Your task to perform on an android device: clear all cookies in the chrome app Image 0: 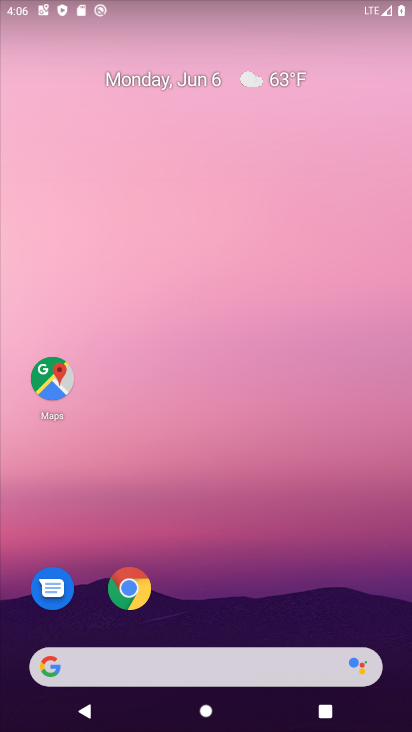
Step 0: drag from (285, 690) to (237, 179)
Your task to perform on an android device: clear all cookies in the chrome app Image 1: 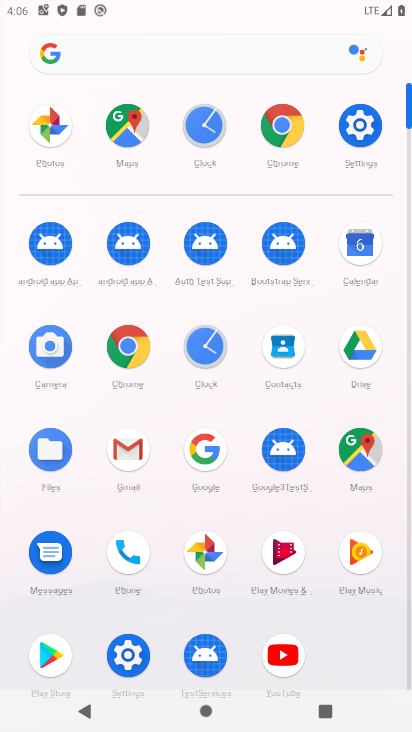
Step 1: click (284, 116)
Your task to perform on an android device: clear all cookies in the chrome app Image 2: 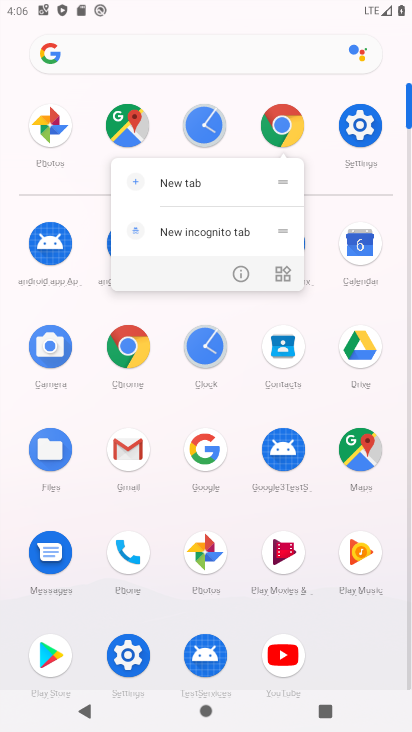
Step 2: click (288, 122)
Your task to perform on an android device: clear all cookies in the chrome app Image 3: 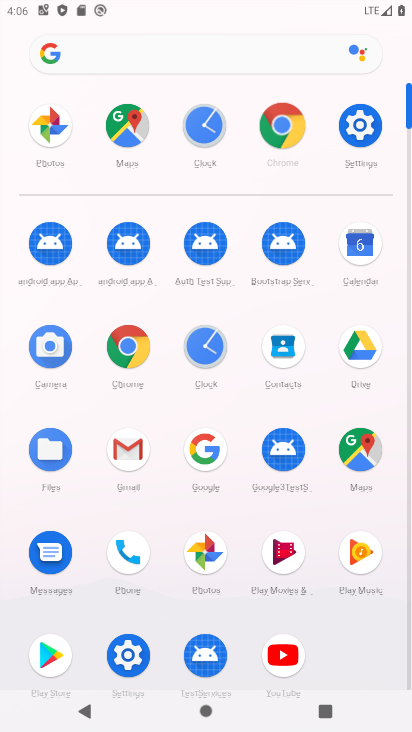
Step 3: click (288, 122)
Your task to perform on an android device: clear all cookies in the chrome app Image 4: 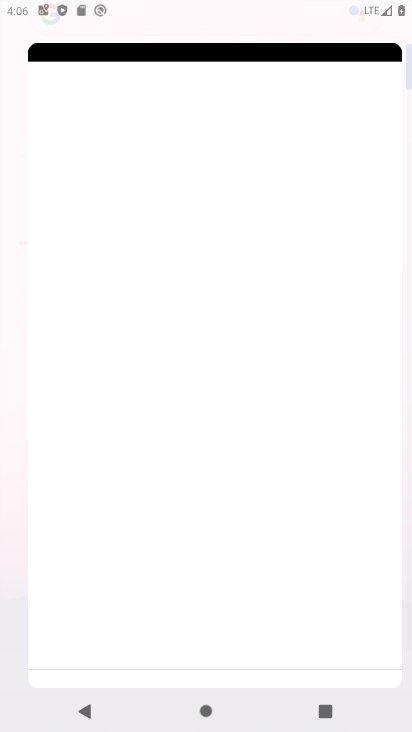
Step 4: click (288, 122)
Your task to perform on an android device: clear all cookies in the chrome app Image 5: 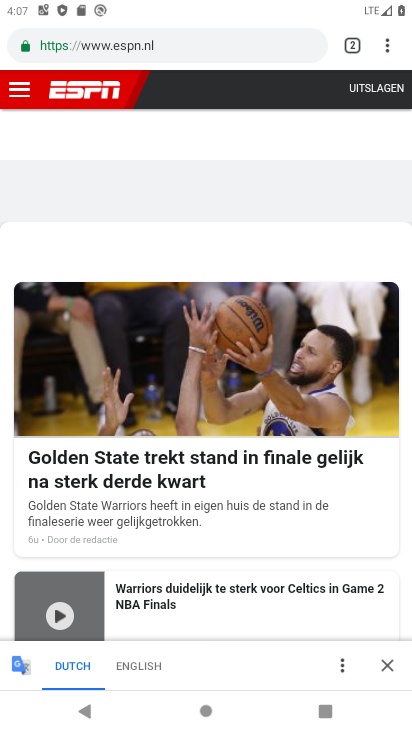
Step 5: drag from (386, 48) to (213, 582)
Your task to perform on an android device: clear all cookies in the chrome app Image 6: 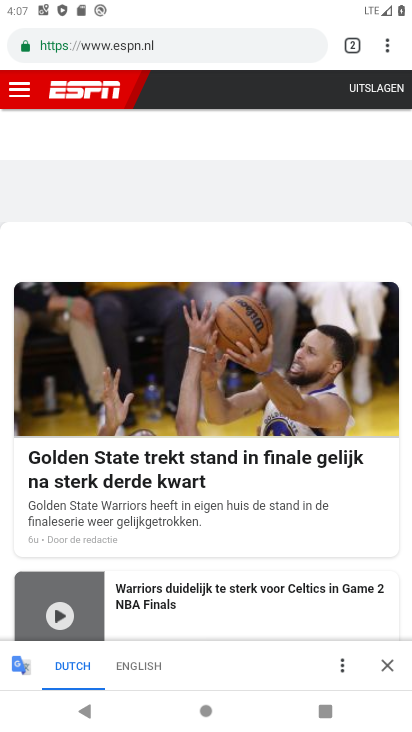
Step 6: click (213, 582)
Your task to perform on an android device: clear all cookies in the chrome app Image 7: 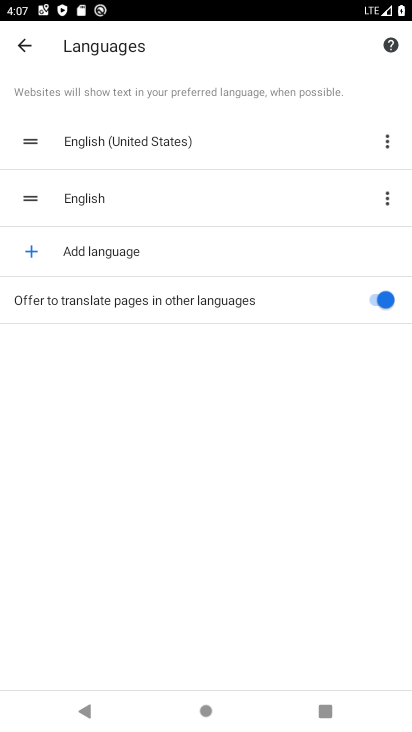
Step 7: click (21, 39)
Your task to perform on an android device: clear all cookies in the chrome app Image 8: 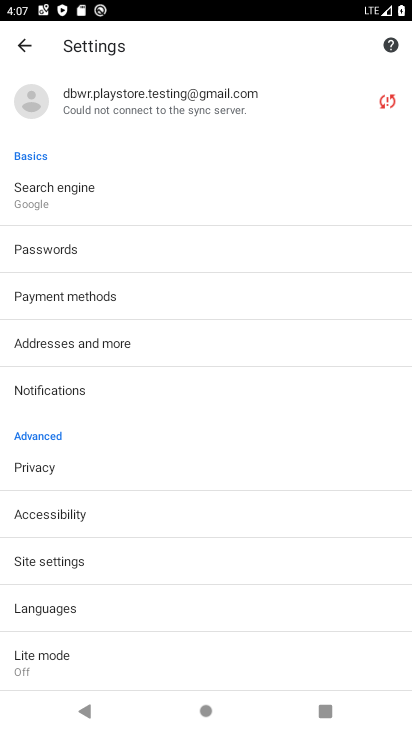
Step 8: click (47, 556)
Your task to perform on an android device: clear all cookies in the chrome app Image 9: 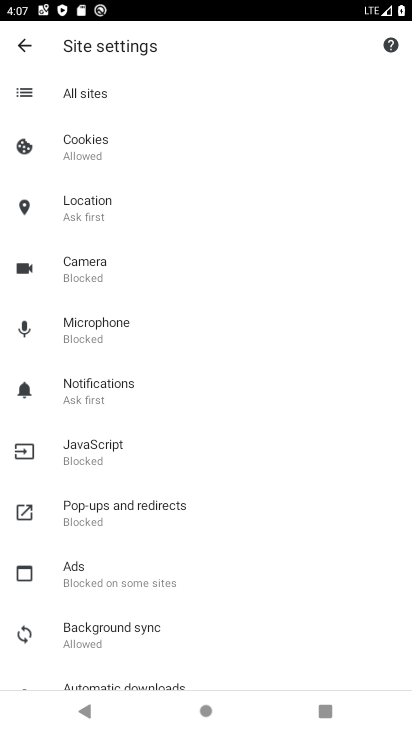
Step 9: click (96, 138)
Your task to perform on an android device: clear all cookies in the chrome app Image 10: 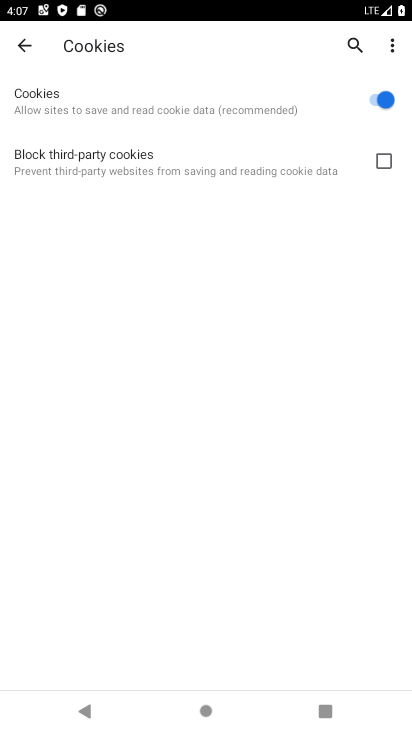
Step 10: click (96, 138)
Your task to perform on an android device: clear all cookies in the chrome app Image 11: 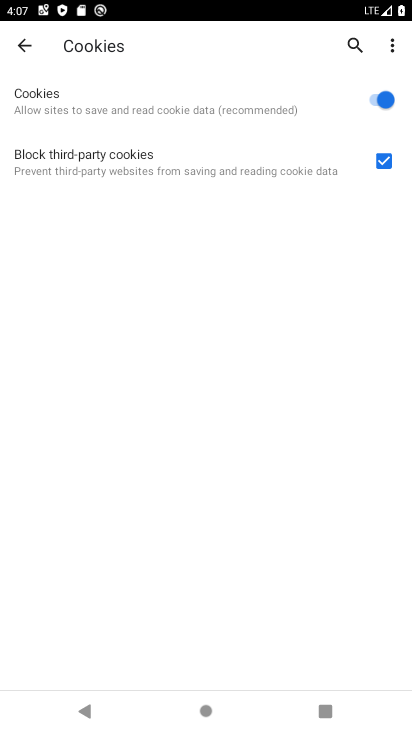
Step 11: task complete